Your task to perform on an android device: Go to internet settings Image 0: 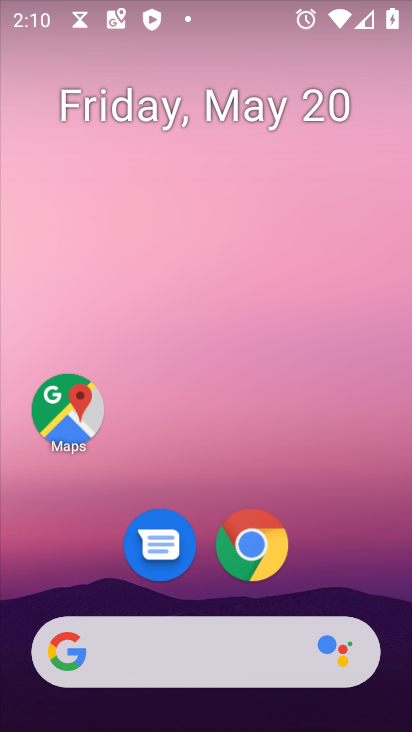
Step 0: drag from (311, 567) to (304, 100)
Your task to perform on an android device: Go to internet settings Image 1: 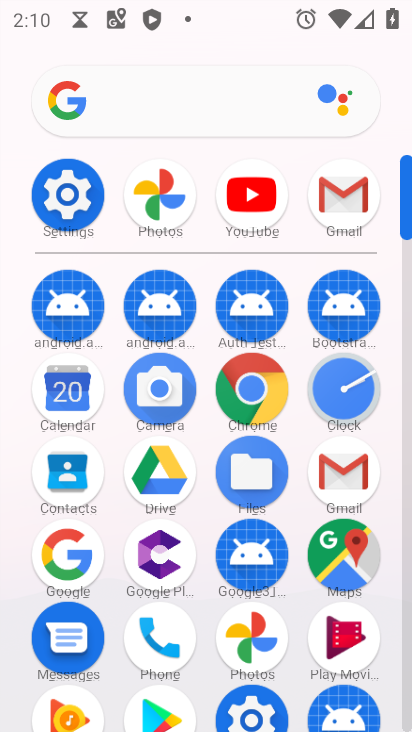
Step 1: click (72, 201)
Your task to perform on an android device: Go to internet settings Image 2: 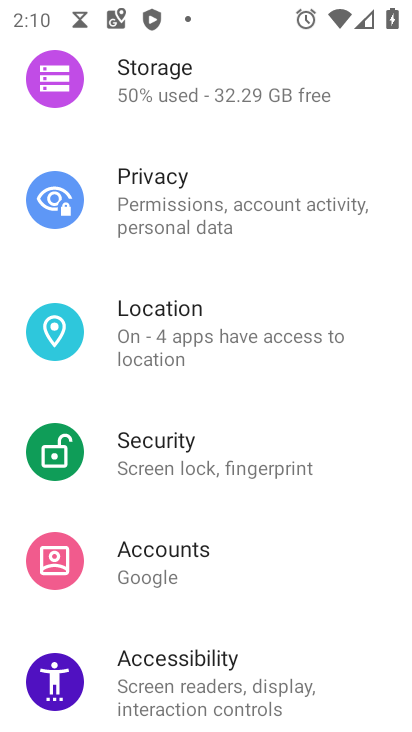
Step 2: drag from (253, 204) to (285, 628)
Your task to perform on an android device: Go to internet settings Image 3: 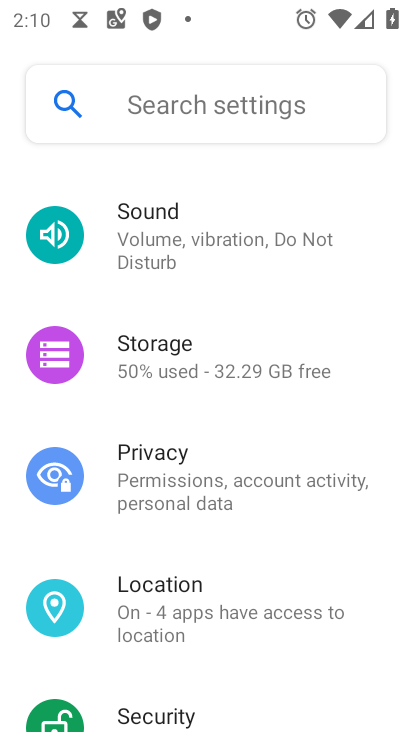
Step 3: drag from (324, 337) to (296, 614)
Your task to perform on an android device: Go to internet settings Image 4: 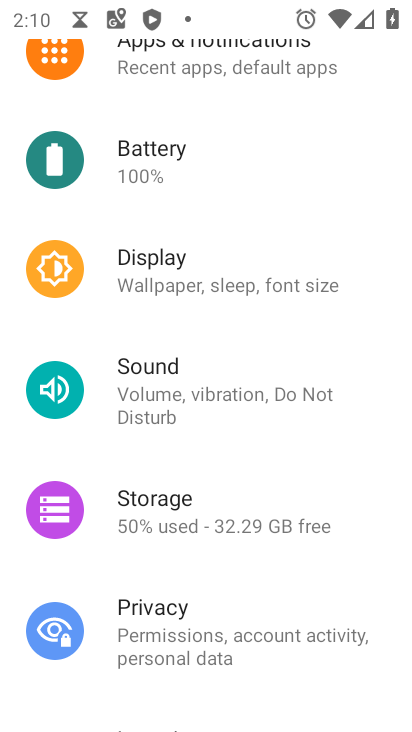
Step 4: drag from (263, 245) to (285, 681)
Your task to perform on an android device: Go to internet settings Image 5: 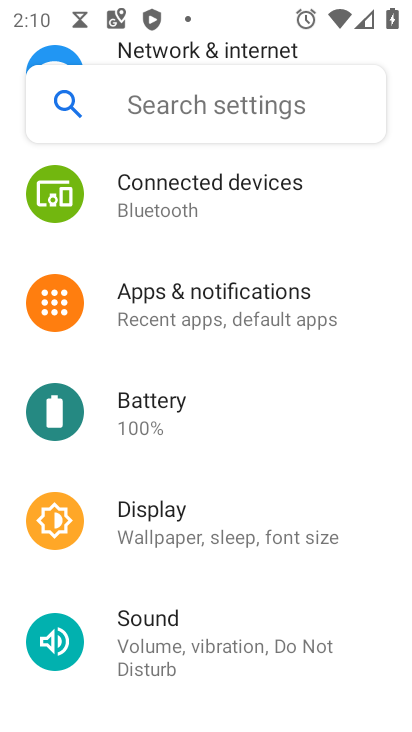
Step 5: drag from (301, 245) to (287, 620)
Your task to perform on an android device: Go to internet settings Image 6: 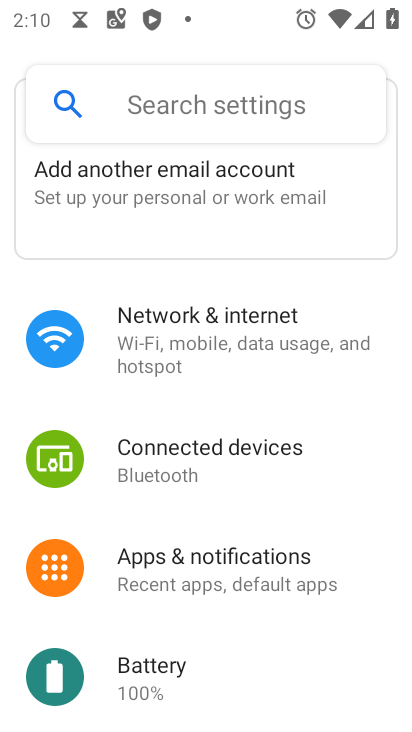
Step 6: click (242, 341)
Your task to perform on an android device: Go to internet settings Image 7: 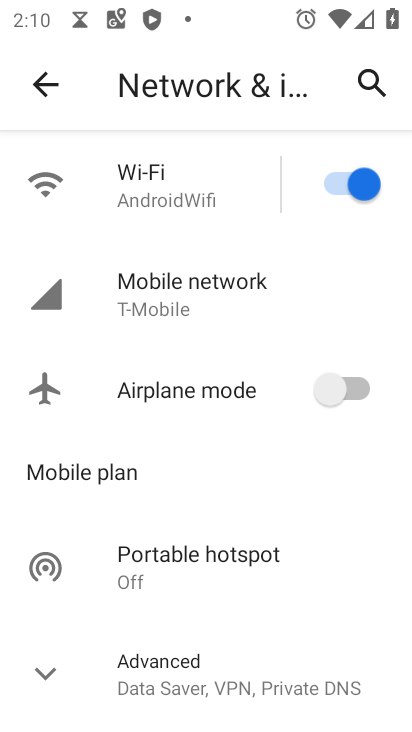
Step 7: task complete